Your task to perform on an android device: change notification settings in the gmail app Image 0: 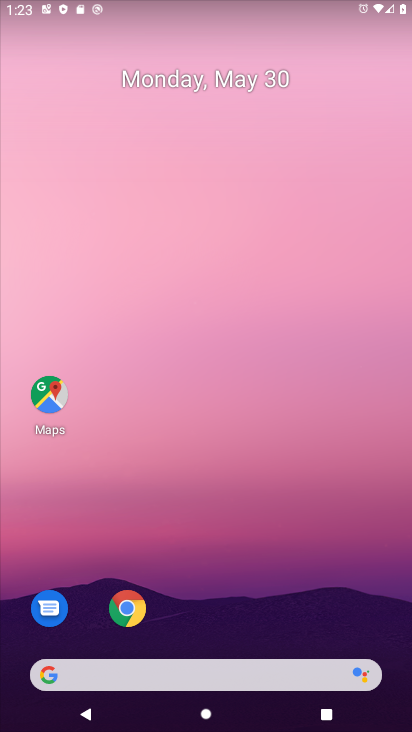
Step 0: drag from (230, 613) to (275, 11)
Your task to perform on an android device: change notification settings in the gmail app Image 1: 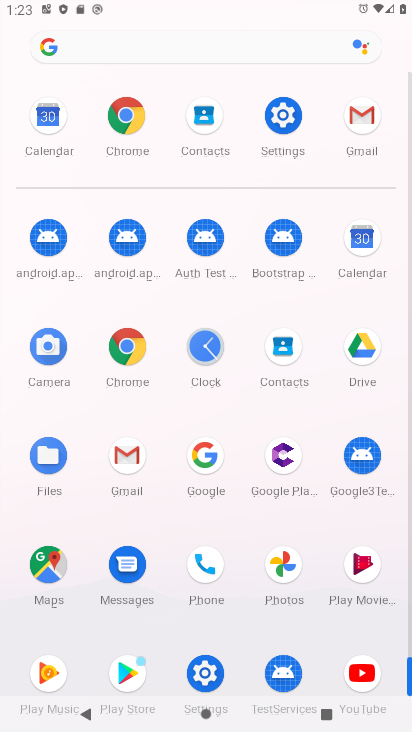
Step 1: click (115, 456)
Your task to perform on an android device: change notification settings in the gmail app Image 2: 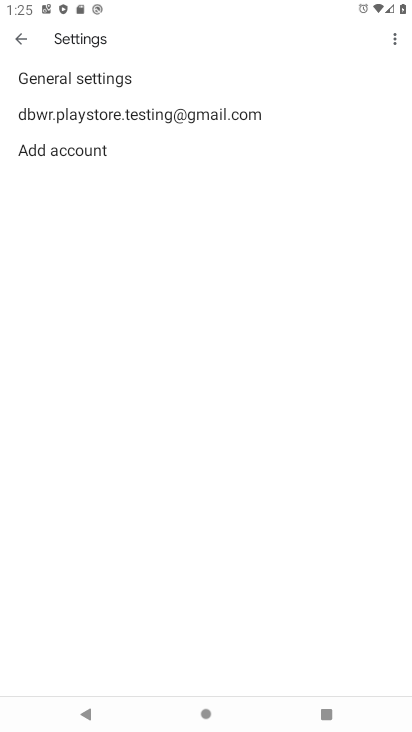
Step 2: click (133, 119)
Your task to perform on an android device: change notification settings in the gmail app Image 3: 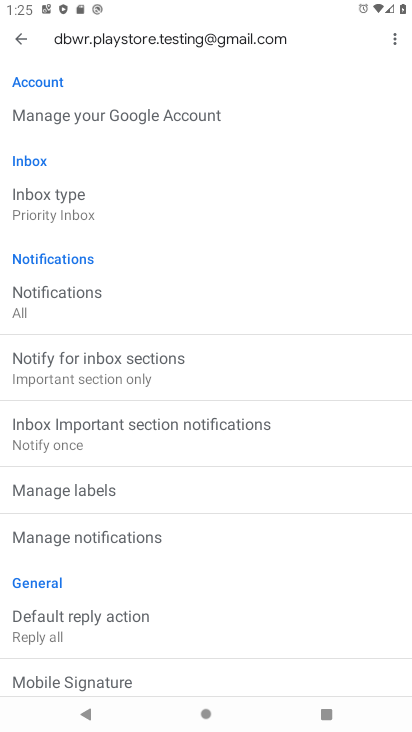
Step 3: click (114, 529)
Your task to perform on an android device: change notification settings in the gmail app Image 4: 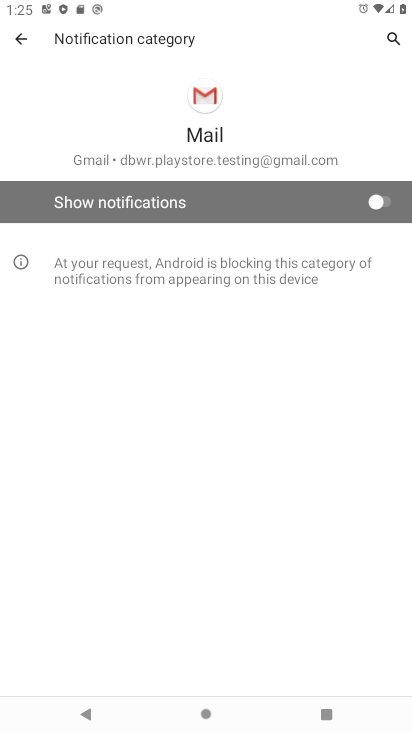
Step 4: task complete